Your task to perform on an android device: turn on translation in the chrome app Image 0: 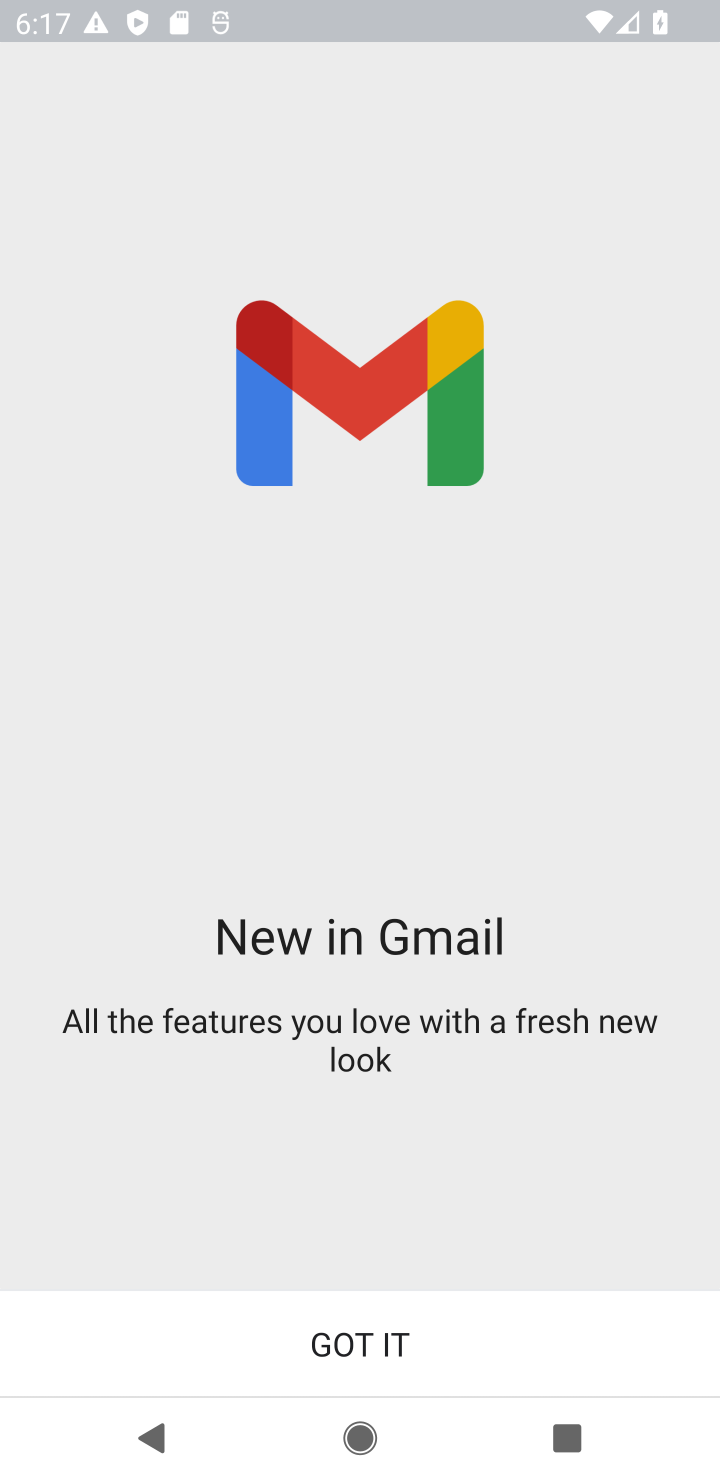
Step 0: press back button
Your task to perform on an android device: turn on translation in the chrome app Image 1: 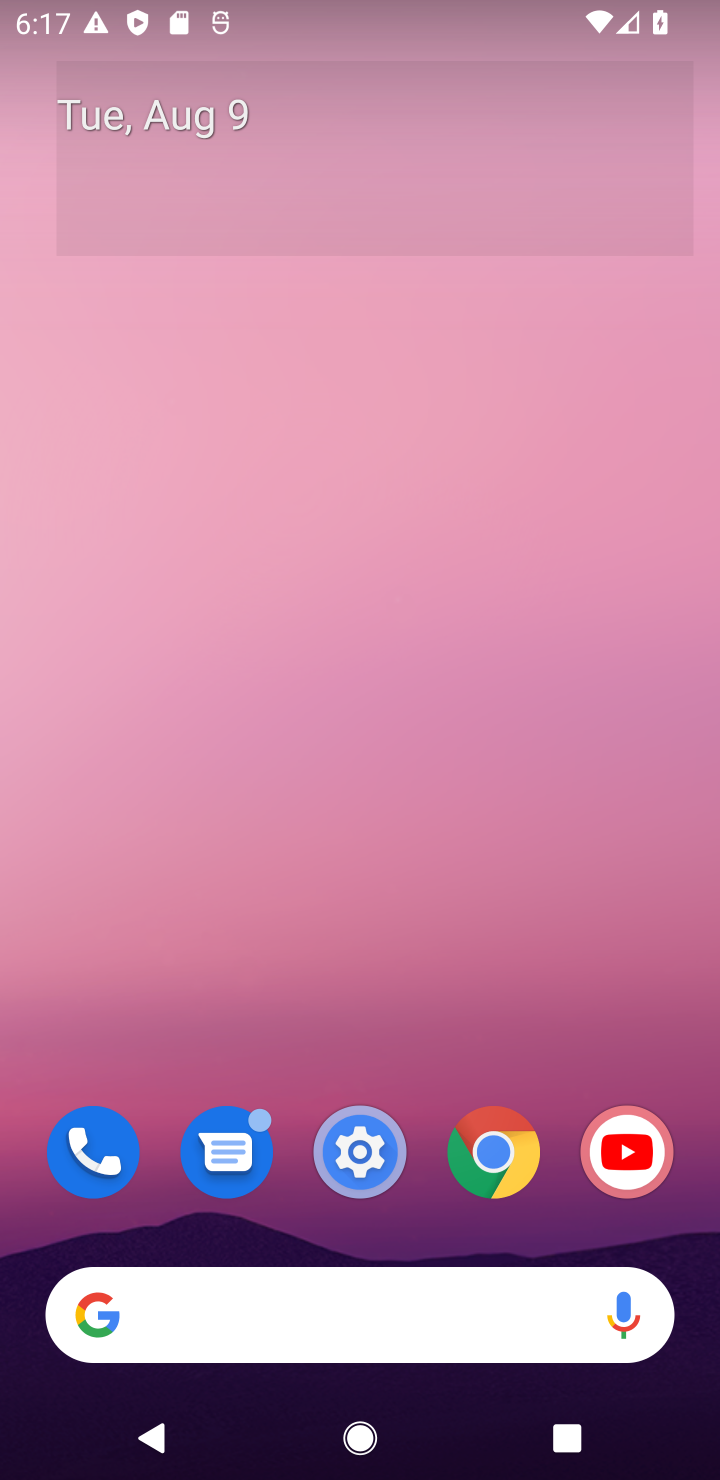
Step 1: click (489, 1152)
Your task to perform on an android device: turn on translation in the chrome app Image 2: 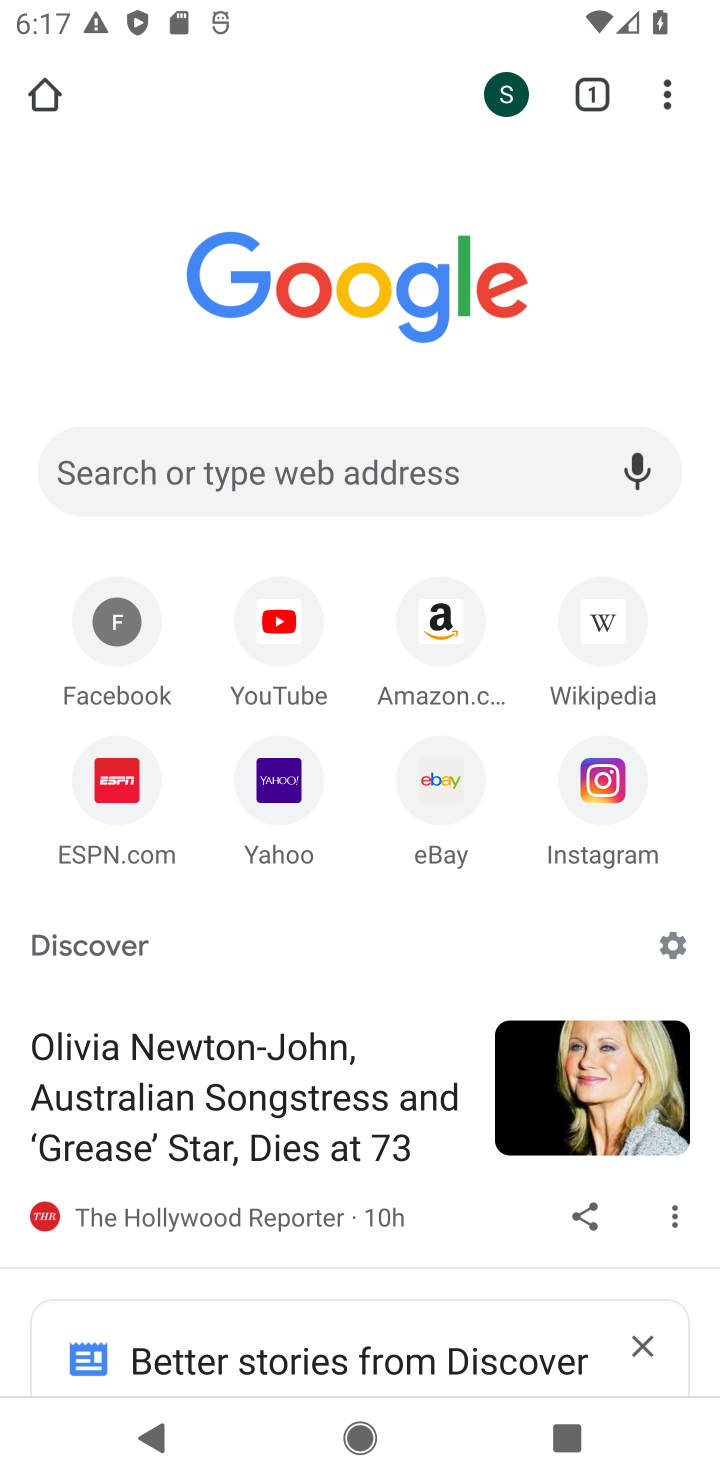
Step 2: drag from (664, 90) to (384, 880)
Your task to perform on an android device: turn on translation in the chrome app Image 3: 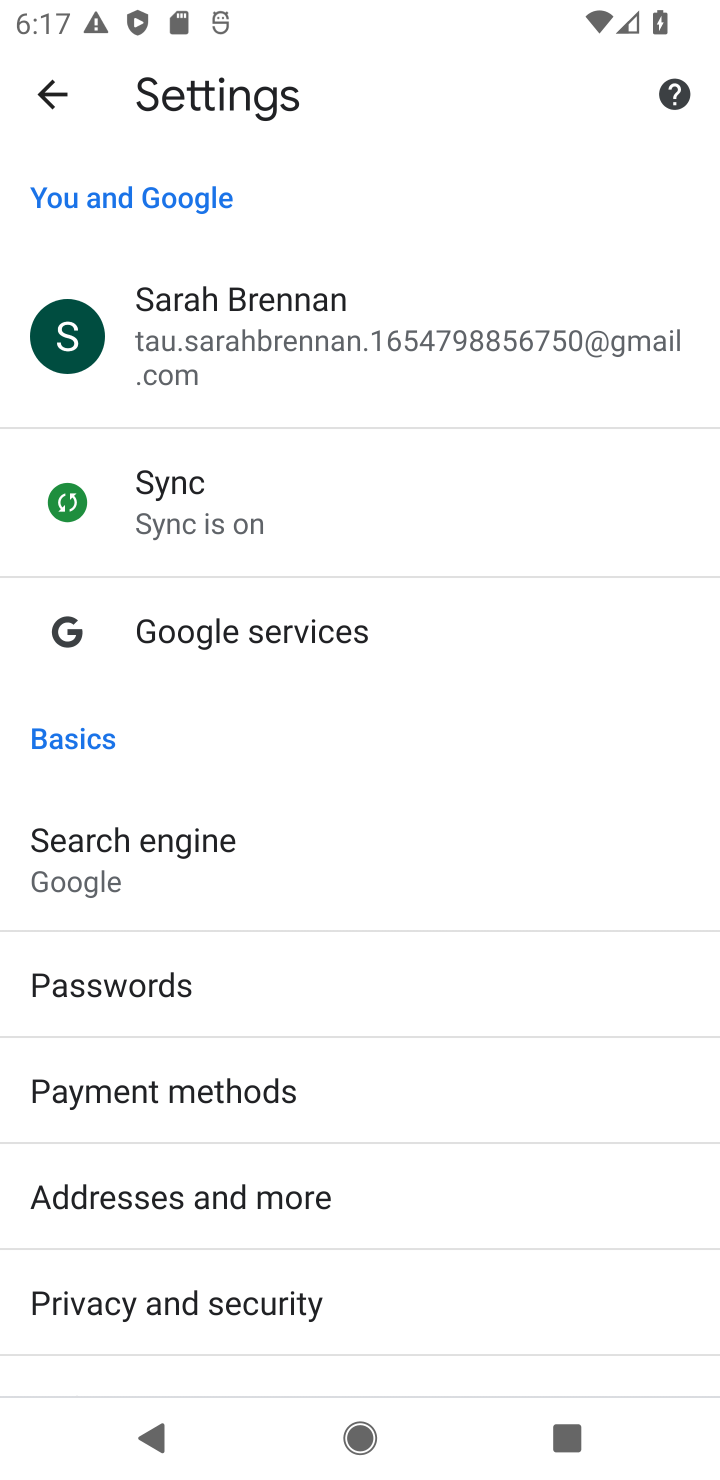
Step 3: drag from (352, 1201) to (541, 153)
Your task to perform on an android device: turn on translation in the chrome app Image 4: 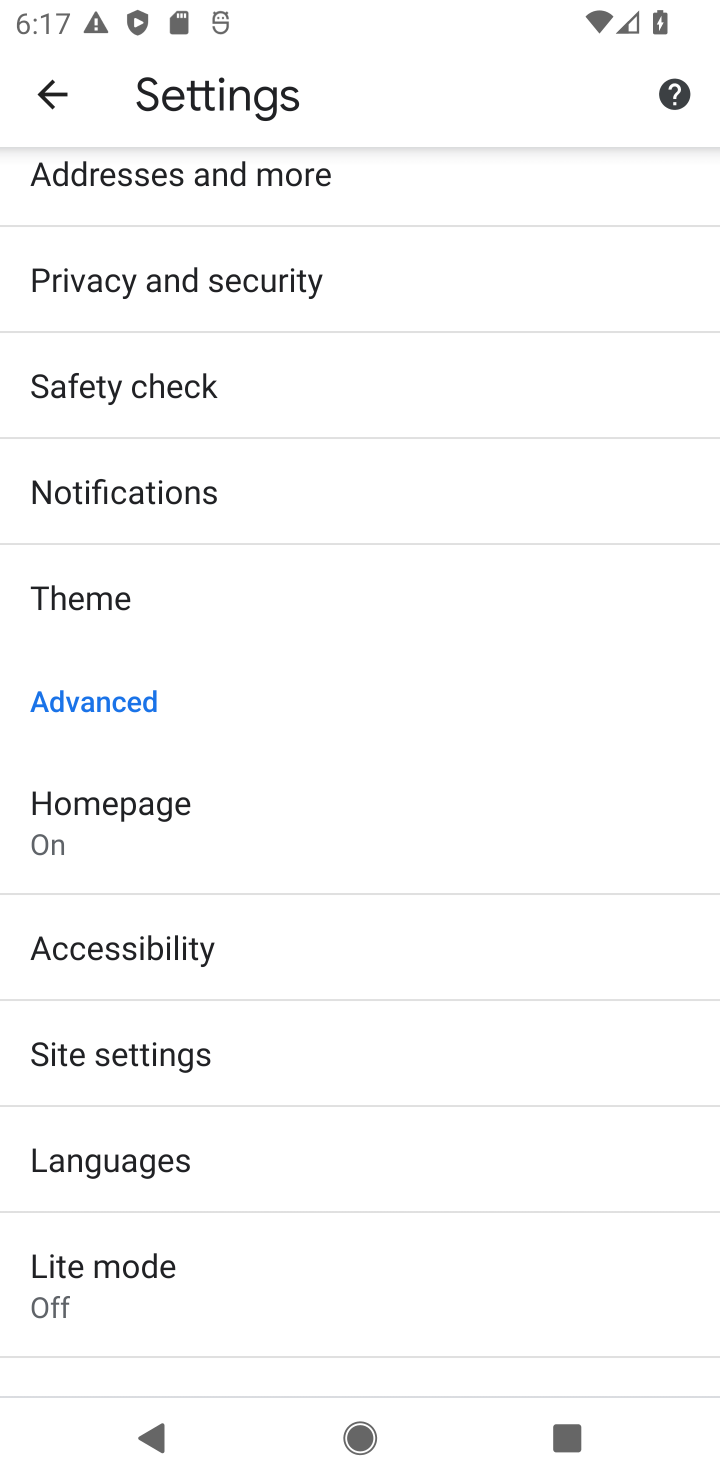
Step 4: click (215, 1173)
Your task to perform on an android device: turn on translation in the chrome app Image 5: 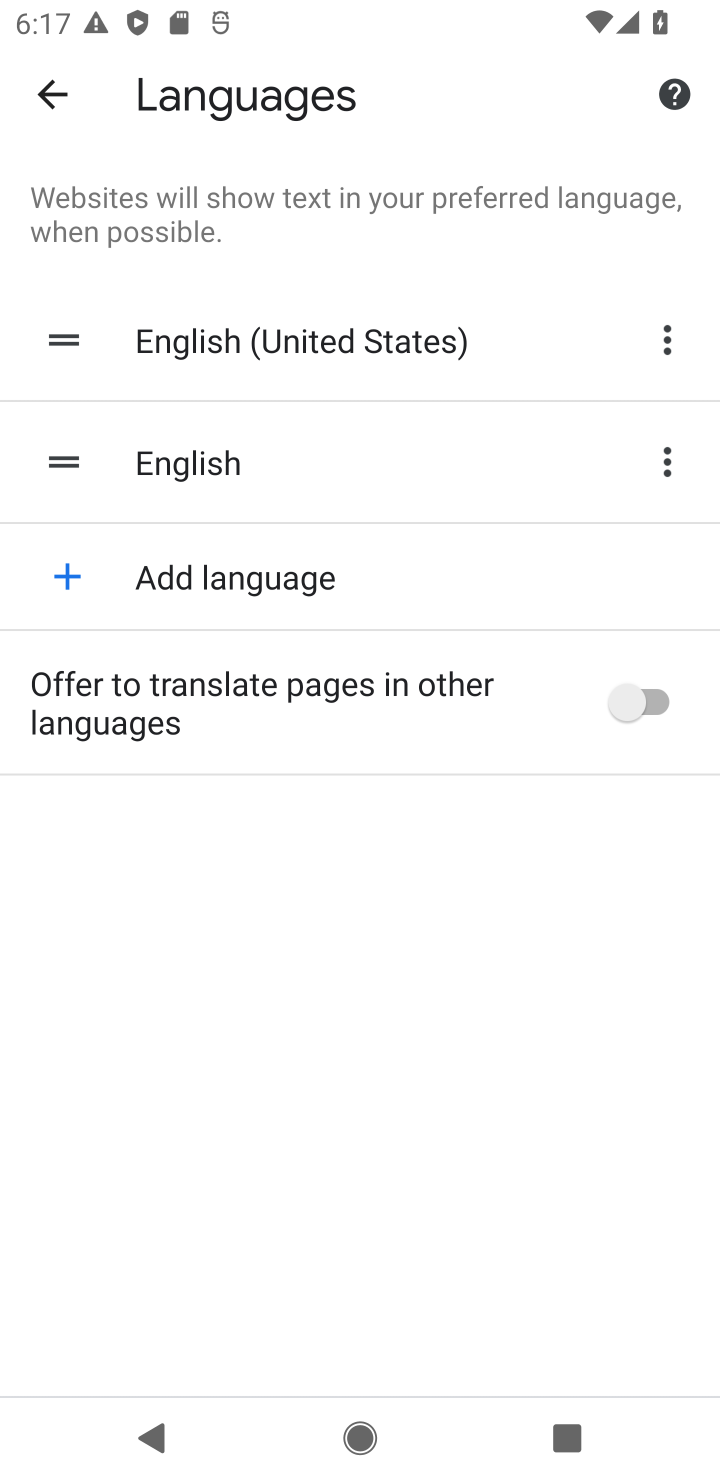
Step 5: click (648, 696)
Your task to perform on an android device: turn on translation in the chrome app Image 6: 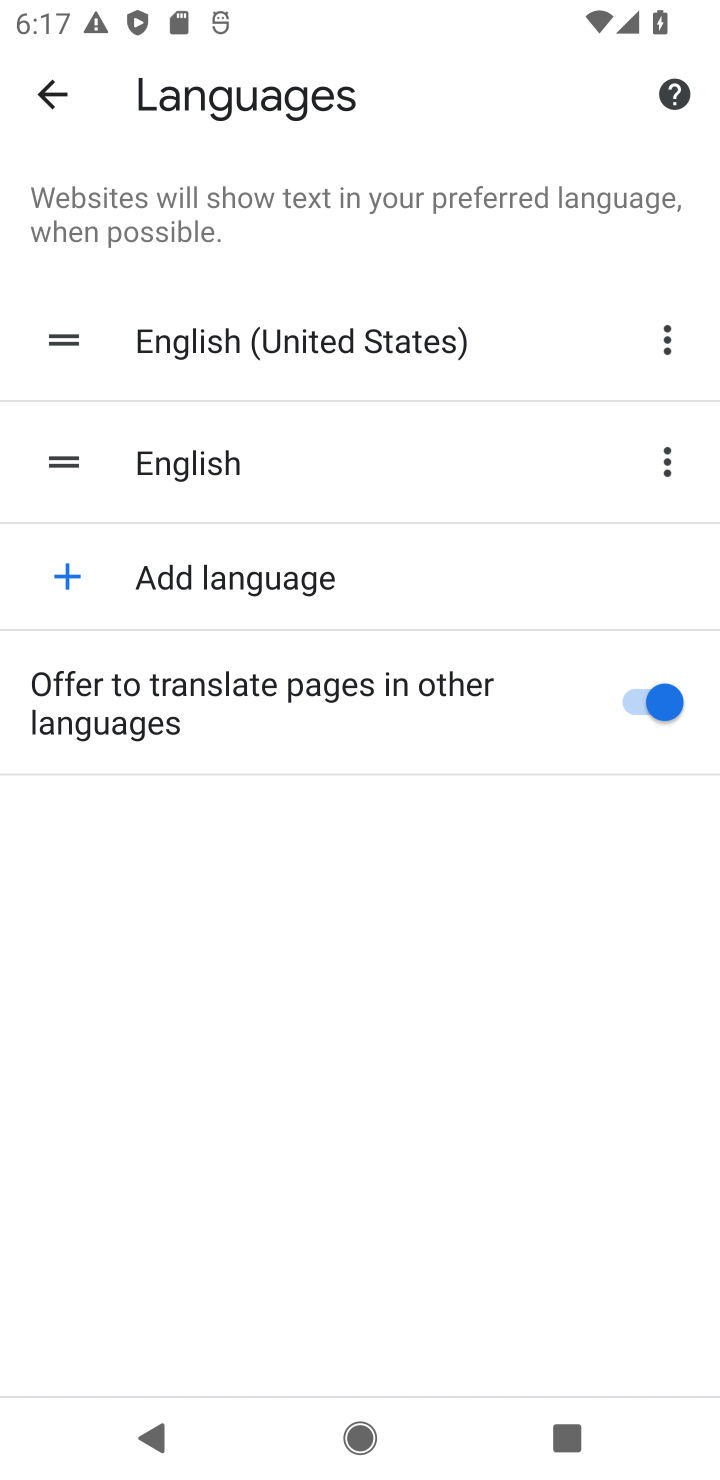
Step 6: task complete